Your task to perform on an android device: What's the weather like inToronto? Image 0: 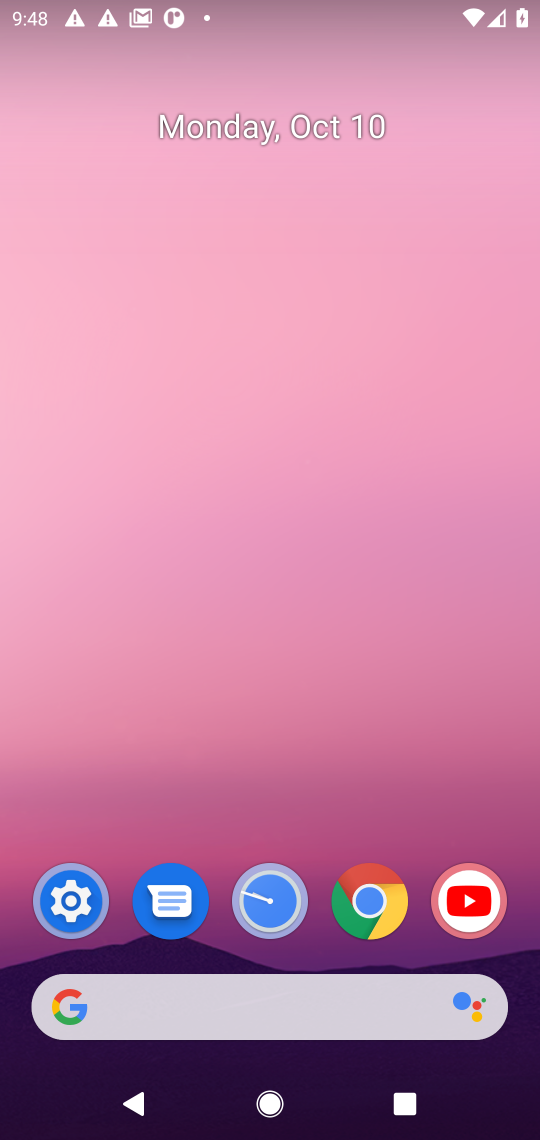
Step 0: click (331, 1013)
Your task to perform on an android device: What's the weather like inToronto? Image 1: 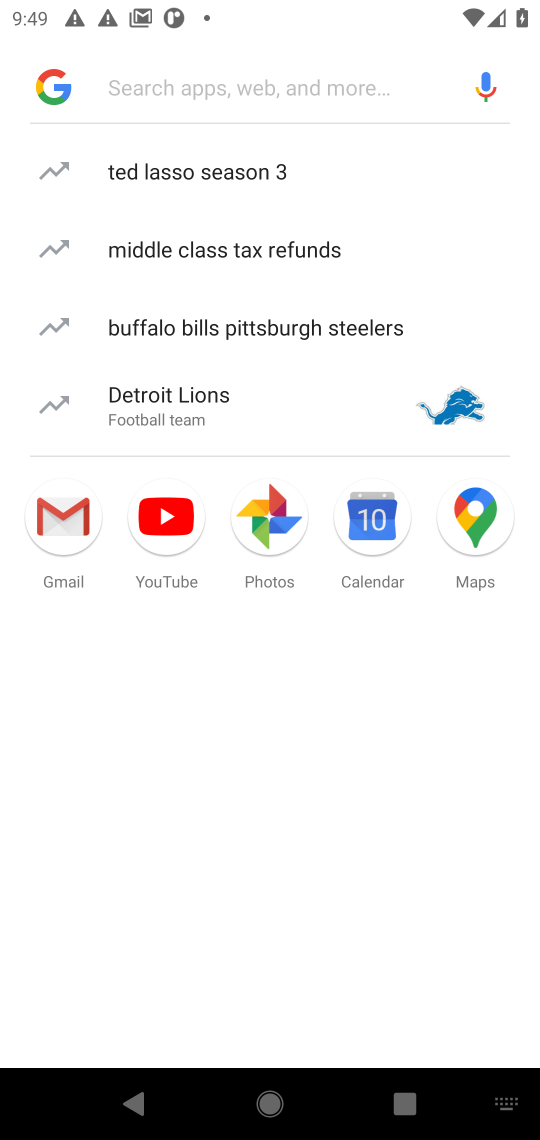
Step 1: press enter
Your task to perform on an android device: What's the weather like inToronto? Image 2: 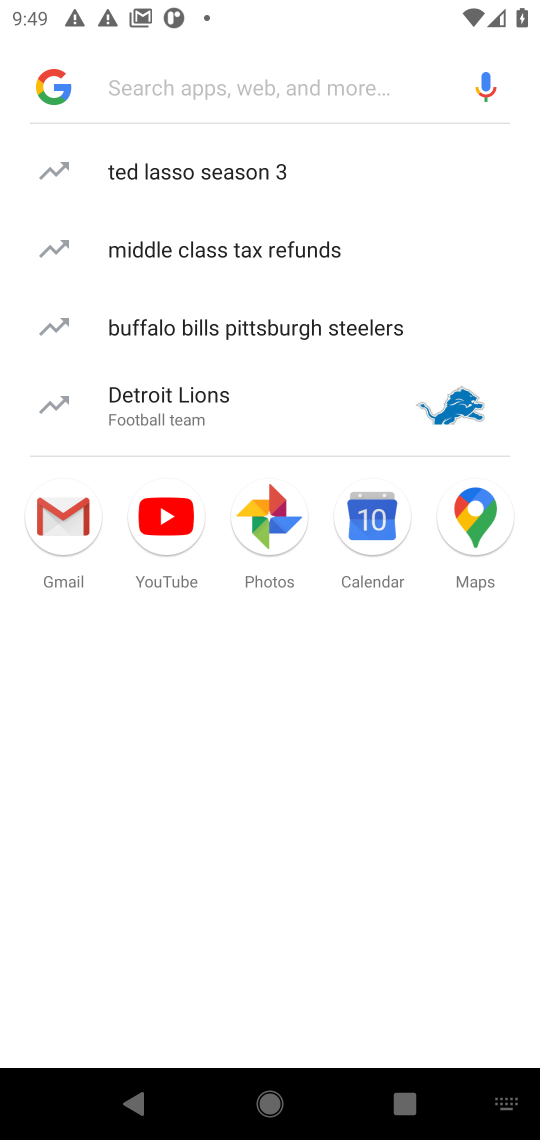
Step 2: type "What's the weather like inToronto?"
Your task to perform on an android device: What's the weather like inToronto? Image 3: 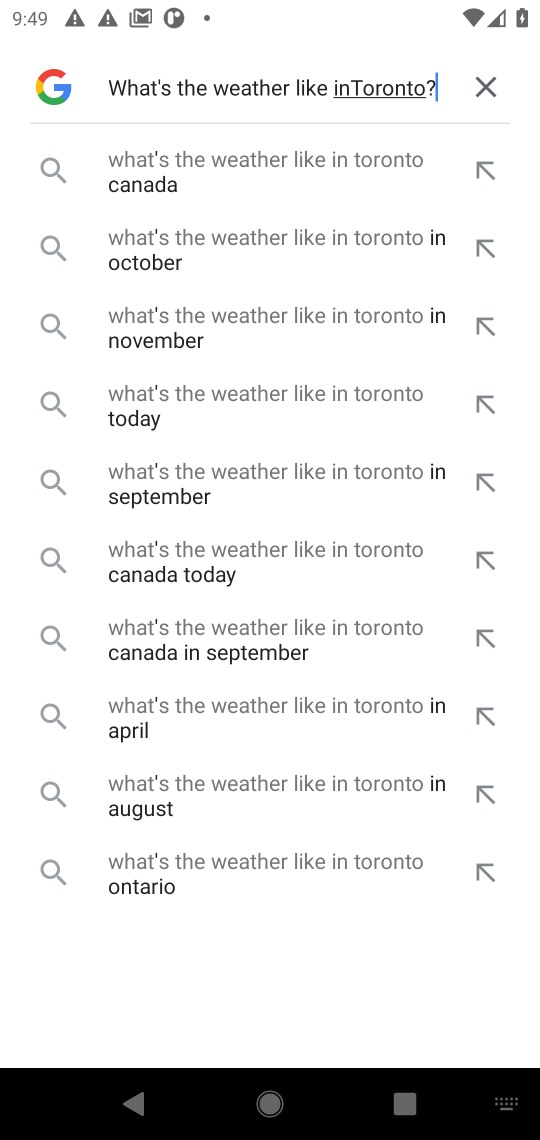
Step 3: press enter
Your task to perform on an android device: What's the weather like inToronto? Image 4: 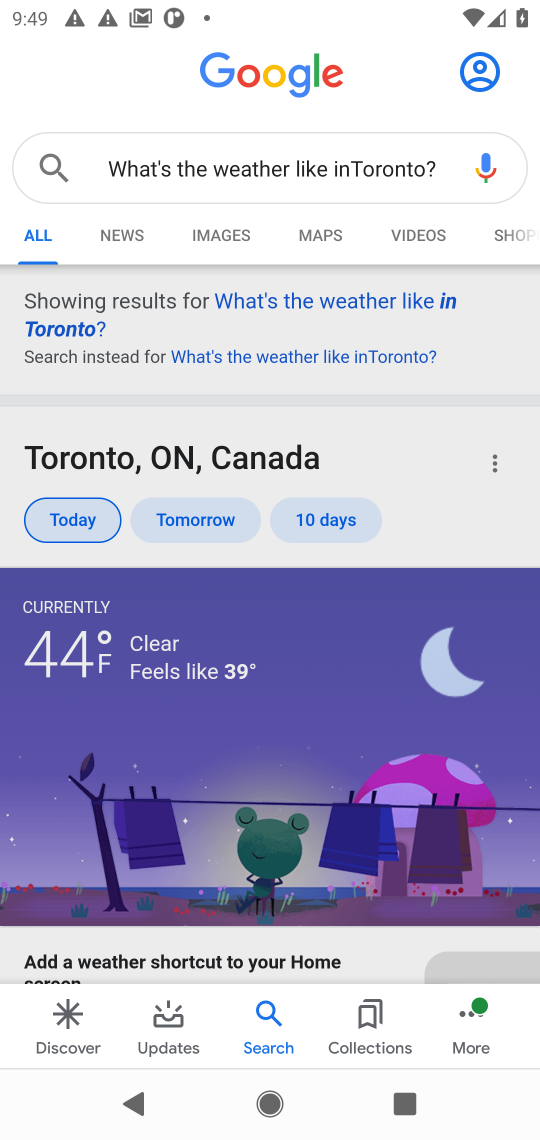
Step 4: task complete